Your task to perform on an android device: Open Google Chrome and click the shortcut for Amazon.com Image 0: 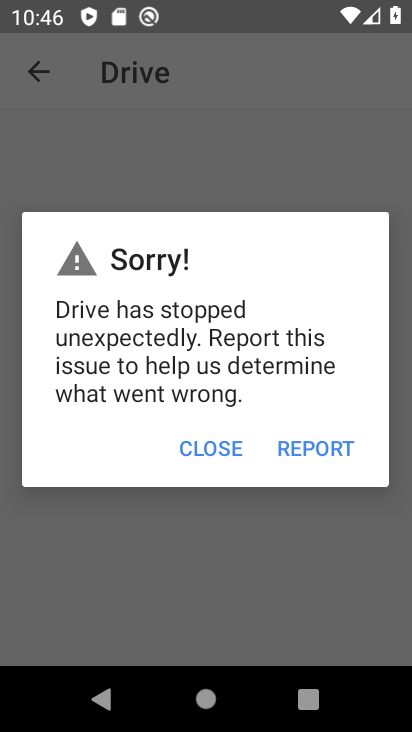
Step 0: press home button
Your task to perform on an android device: Open Google Chrome and click the shortcut for Amazon.com Image 1: 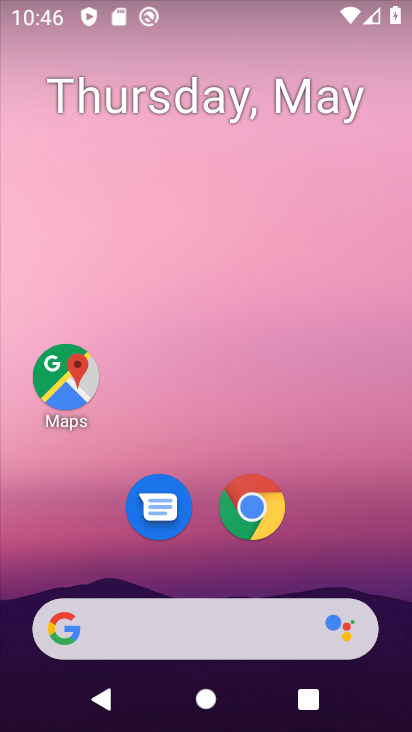
Step 1: drag from (280, 517) to (316, 86)
Your task to perform on an android device: Open Google Chrome and click the shortcut for Amazon.com Image 2: 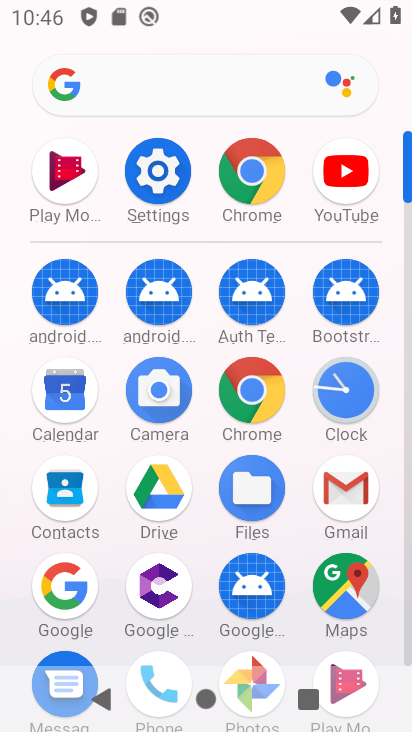
Step 2: click (255, 196)
Your task to perform on an android device: Open Google Chrome and click the shortcut for Amazon.com Image 3: 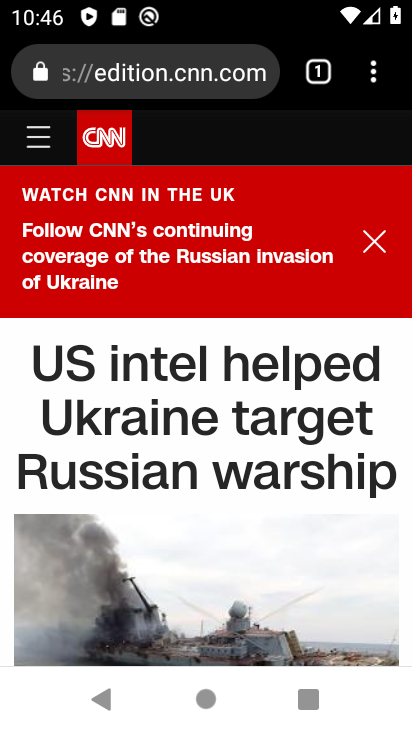
Step 3: drag from (321, 76) to (259, 352)
Your task to perform on an android device: Open Google Chrome and click the shortcut for Amazon.com Image 4: 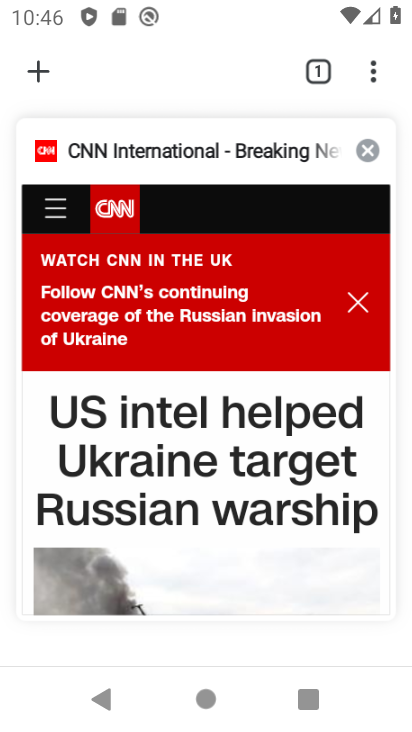
Step 4: click (40, 82)
Your task to perform on an android device: Open Google Chrome and click the shortcut for Amazon.com Image 5: 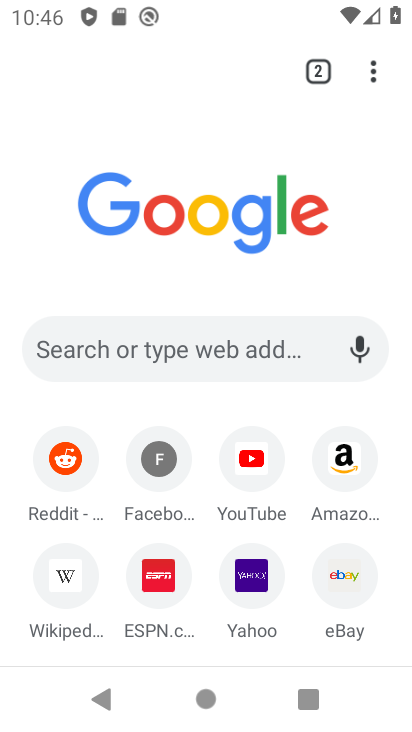
Step 5: click (335, 468)
Your task to perform on an android device: Open Google Chrome and click the shortcut for Amazon.com Image 6: 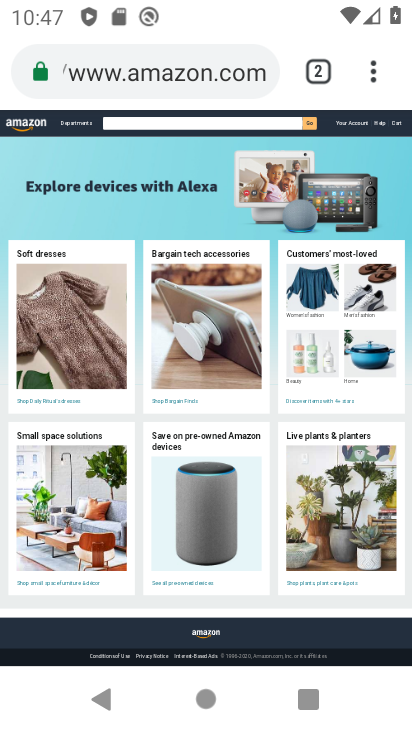
Step 6: task complete